Your task to perform on an android device: What is the recent news? Image 0: 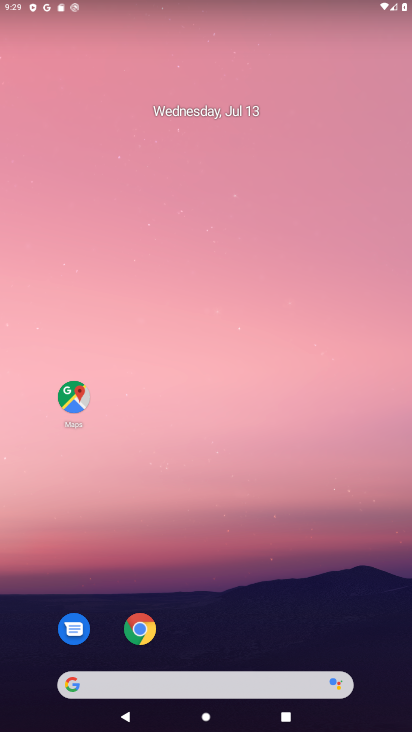
Step 0: task complete